Your task to perform on an android device: turn on javascript in the chrome app Image 0: 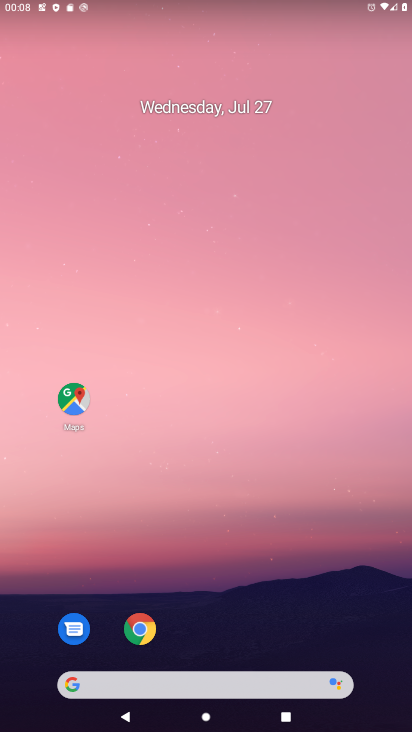
Step 0: click (139, 639)
Your task to perform on an android device: turn on javascript in the chrome app Image 1: 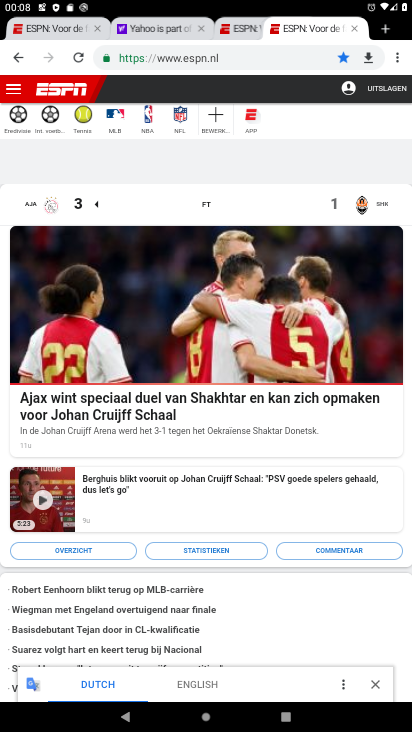
Step 1: click (397, 63)
Your task to perform on an android device: turn on javascript in the chrome app Image 2: 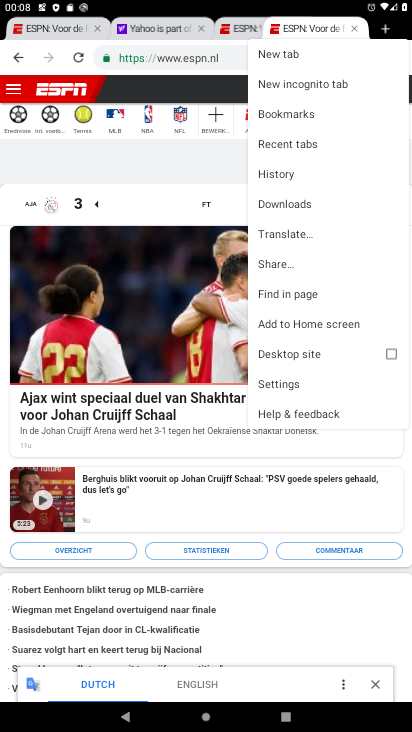
Step 2: click (272, 384)
Your task to perform on an android device: turn on javascript in the chrome app Image 3: 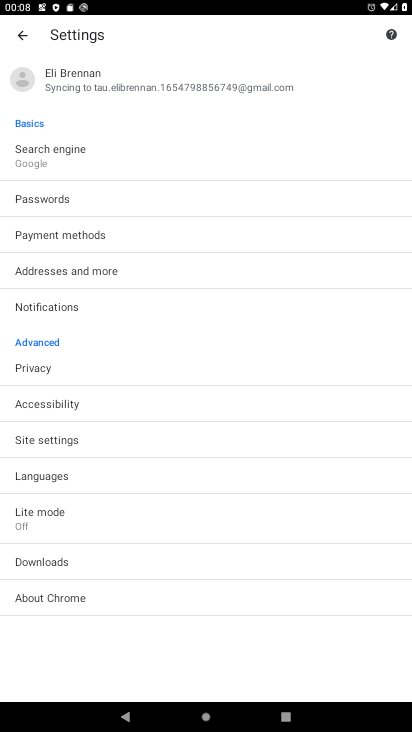
Step 3: click (40, 440)
Your task to perform on an android device: turn on javascript in the chrome app Image 4: 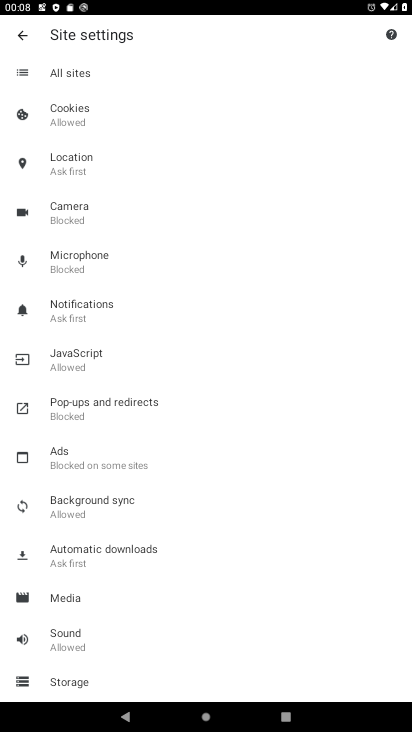
Step 4: click (63, 358)
Your task to perform on an android device: turn on javascript in the chrome app Image 5: 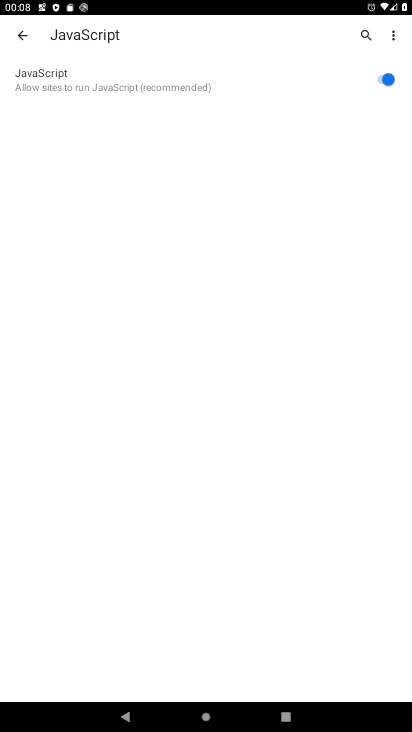
Step 5: task complete